Your task to perform on an android device: turn off sleep mode Image 0: 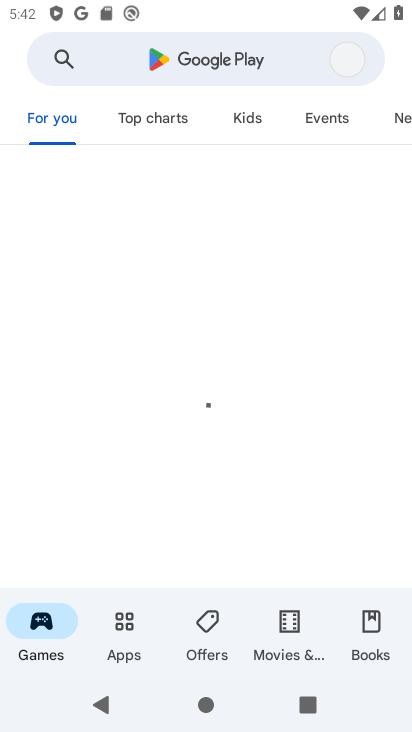
Step 0: press home button
Your task to perform on an android device: turn off sleep mode Image 1: 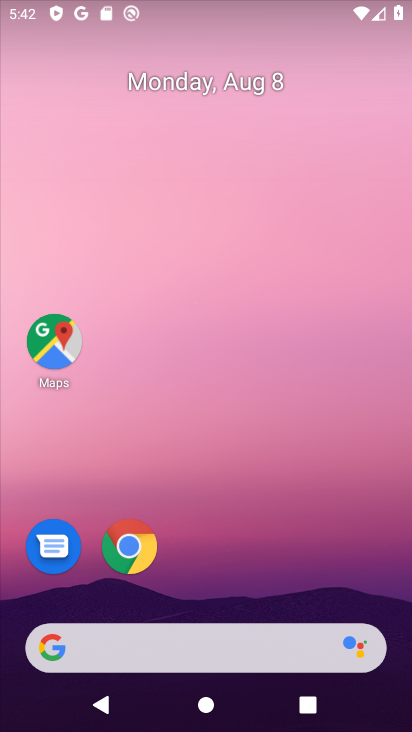
Step 1: drag from (215, 587) to (217, 166)
Your task to perform on an android device: turn off sleep mode Image 2: 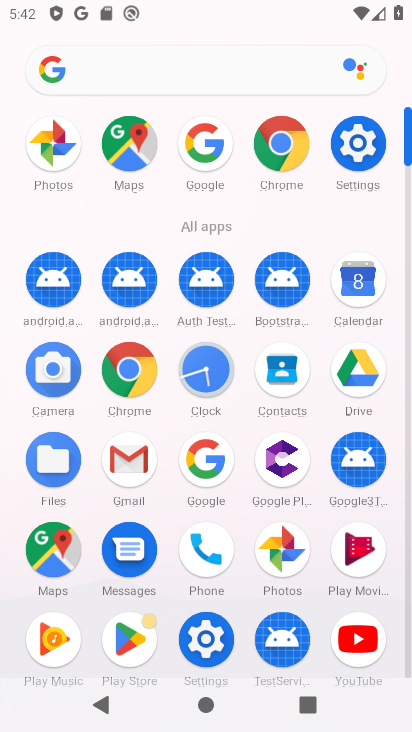
Step 2: click (374, 166)
Your task to perform on an android device: turn off sleep mode Image 3: 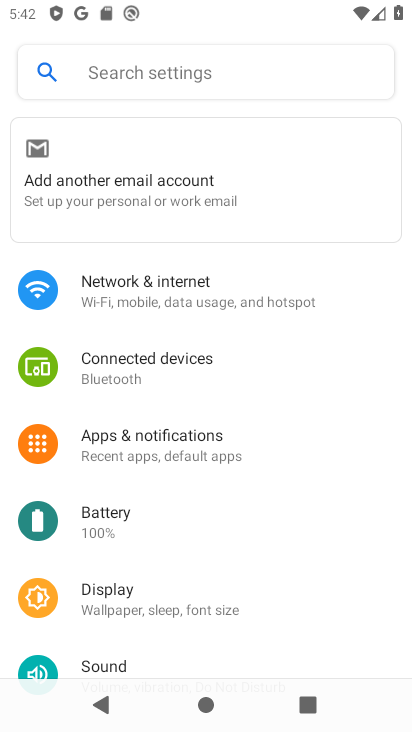
Step 3: click (128, 585)
Your task to perform on an android device: turn off sleep mode Image 4: 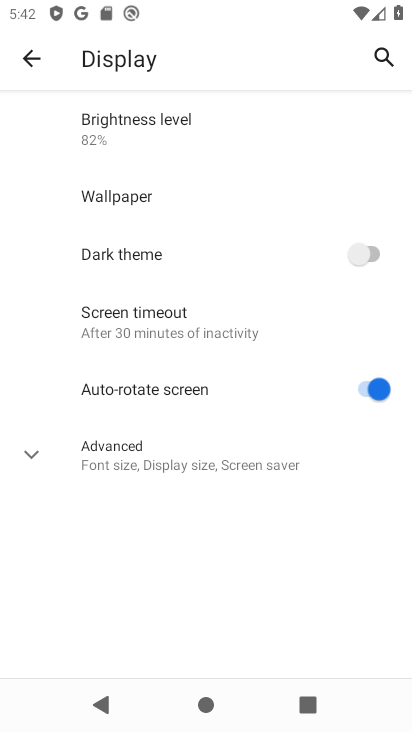
Step 4: click (276, 326)
Your task to perform on an android device: turn off sleep mode Image 5: 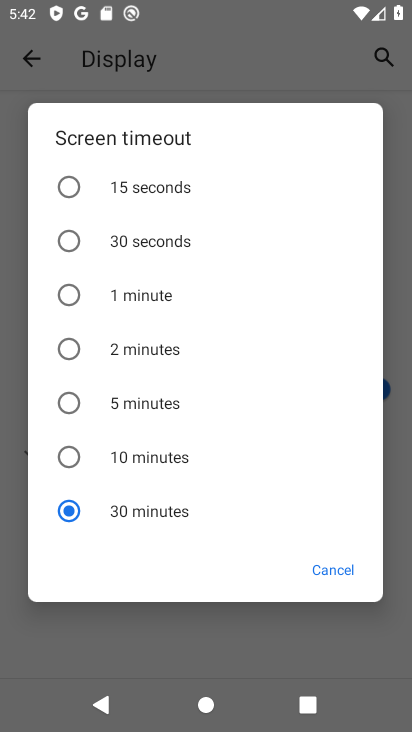
Step 5: click (156, 262)
Your task to perform on an android device: turn off sleep mode Image 6: 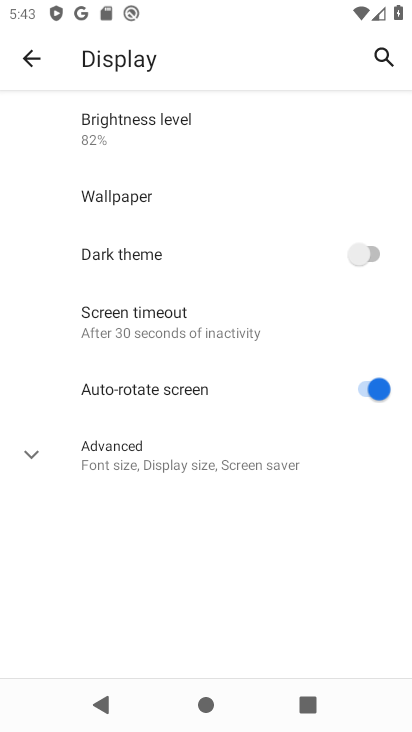
Step 6: task complete